Your task to perform on an android device: Do I have any events today? Image 0: 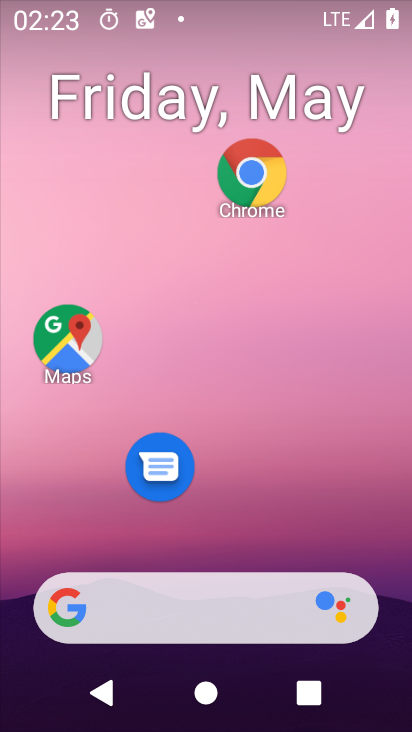
Step 0: drag from (306, 644) to (370, 145)
Your task to perform on an android device: Do I have any events today? Image 1: 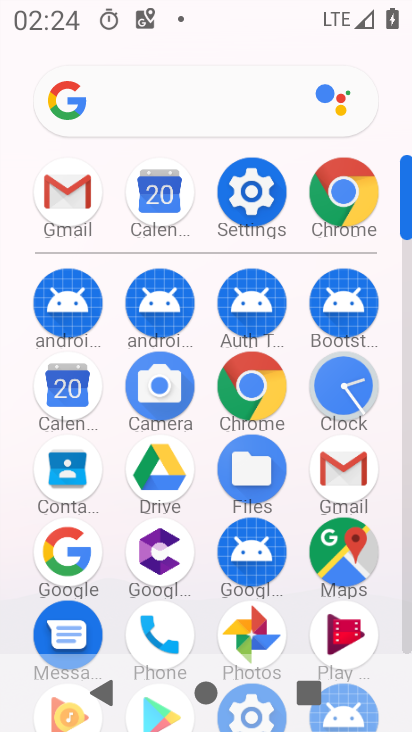
Step 1: click (69, 391)
Your task to perform on an android device: Do I have any events today? Image 2: 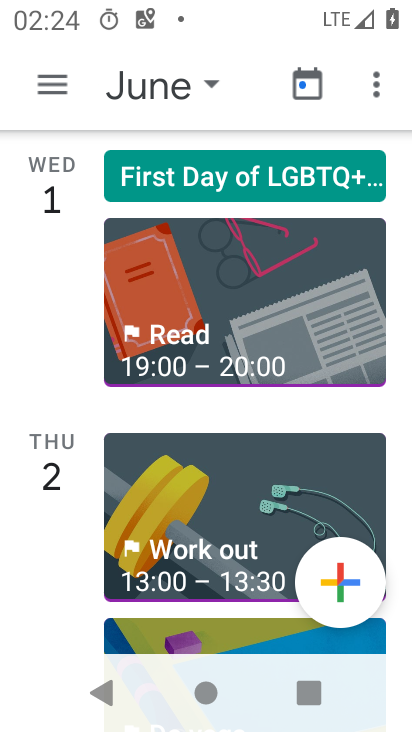
Step 2: click (41, 81)
Your task to perform on an android device: Do I have any events today? Image 3: 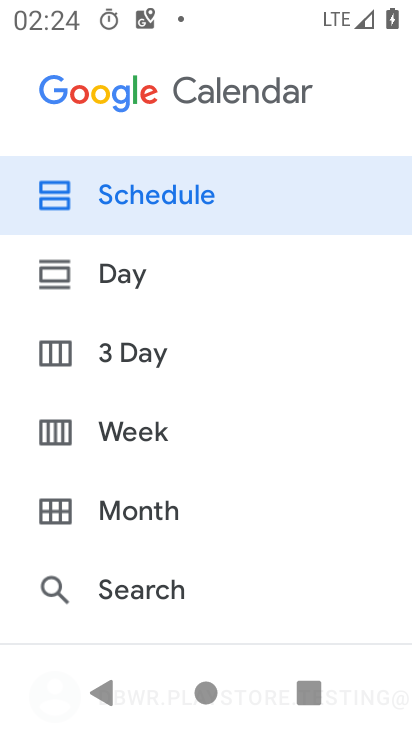
Step 3: click (152, 504)
Your task to perform on an android device: Do I have any events today? Image 4: 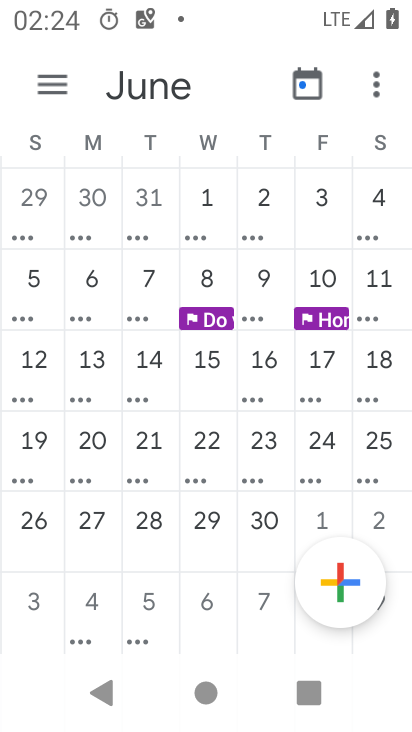
Step 4: drag from (34, 377) to (409, 385)
Your task to perform on an android device: Do I have any events today? Image 5: 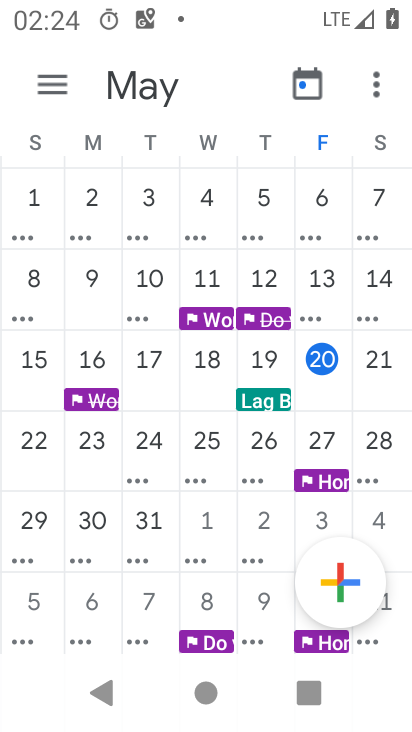
Step 5: click (317, 387)
Your task to perform on an android device: Do I have any events today? Image 6: 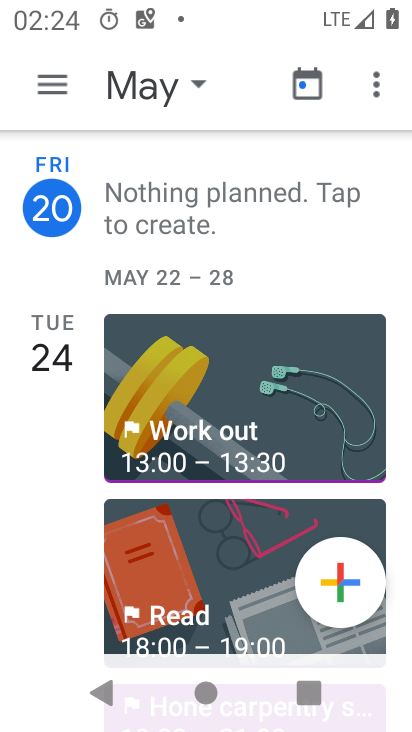
Step 6: task complete